Your task to perform on an android device: Go to wifi settings Image 0: 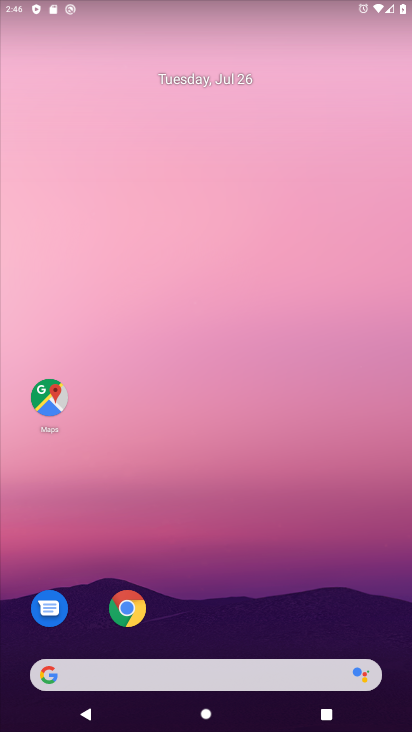
Step 0: drag from (239, 584) to (243, 54)
Your task to perform on an android device: Go to wifi settings Image 1: 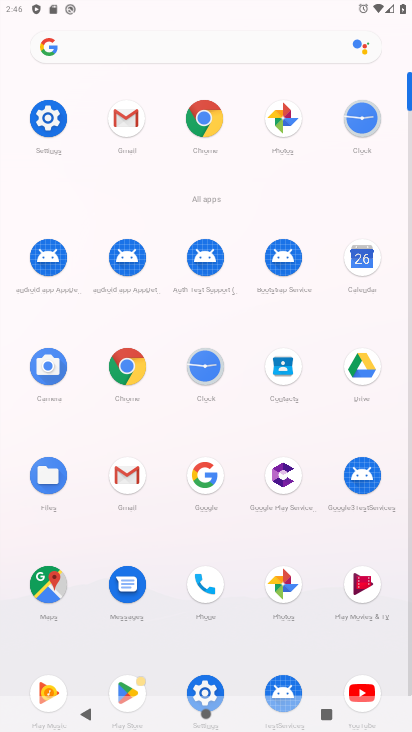
Step 1: click (48, 129)
Your task to perform on an android device: Go to wifi settings Image 2: 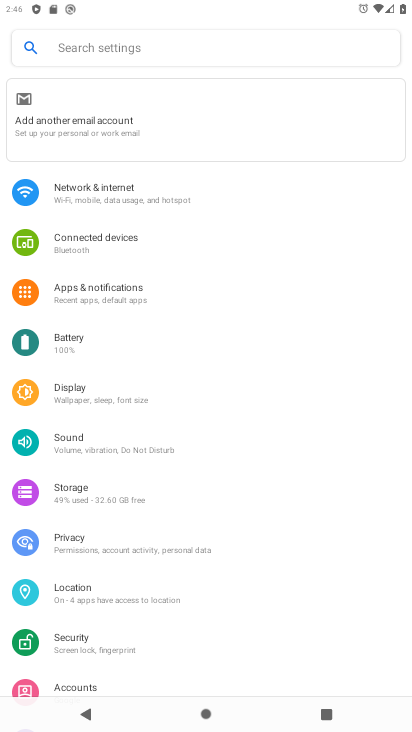
Step 2: click (60, 184)
Your task to perform on an android device: Go to wifi settings Image 3: 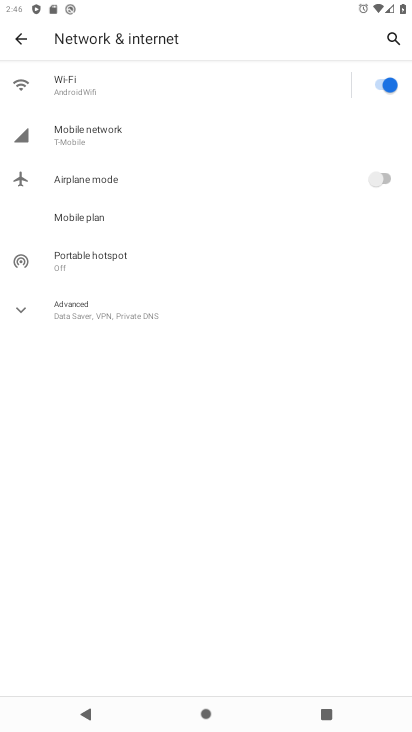
Step 3: click (211, 82)
Your task to perform on an android device: Go to wifi settings Image 4: 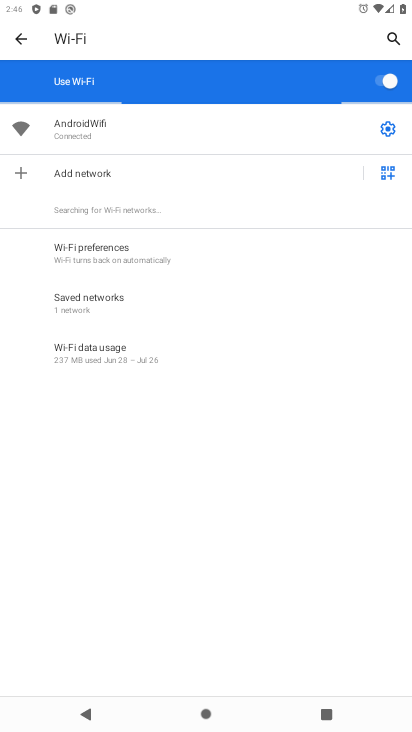
Step 4: task complete